Your task to perform on an android device: turn on airplane mode Image 0: 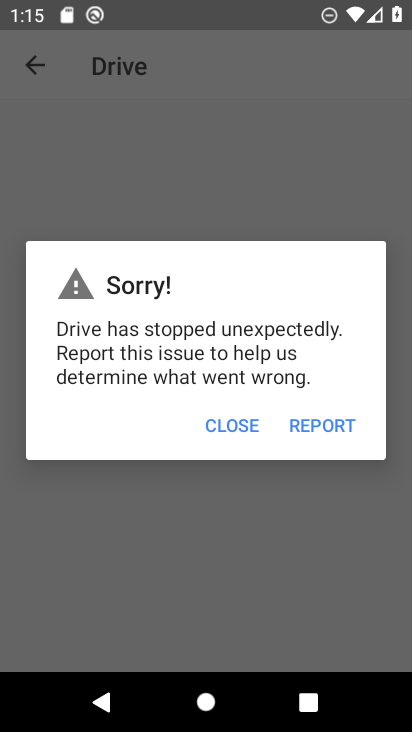
Step 0: press home button
Your task to perform on an android device: turn on airplane mode Image 1: 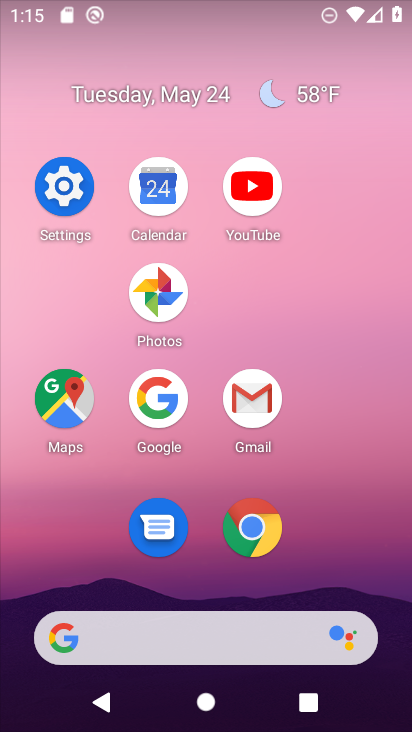
Step 1: click (64, 181)
Your task to perform on an android device: turn on airplane mode Image 2: 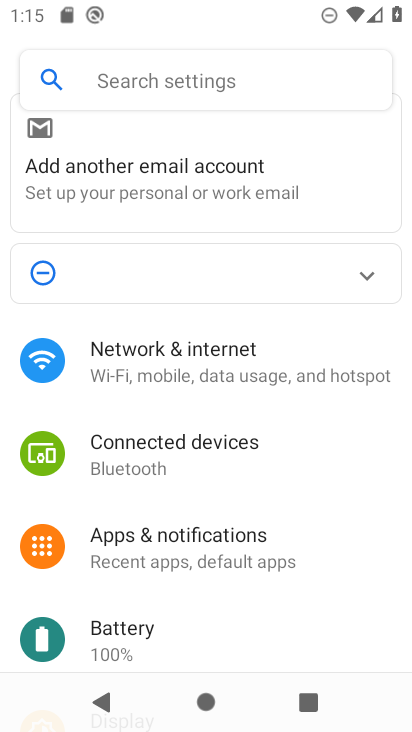
Step 2: click (255, 361)
Your task to perform on an android device: turn on airplane mode Image 3: 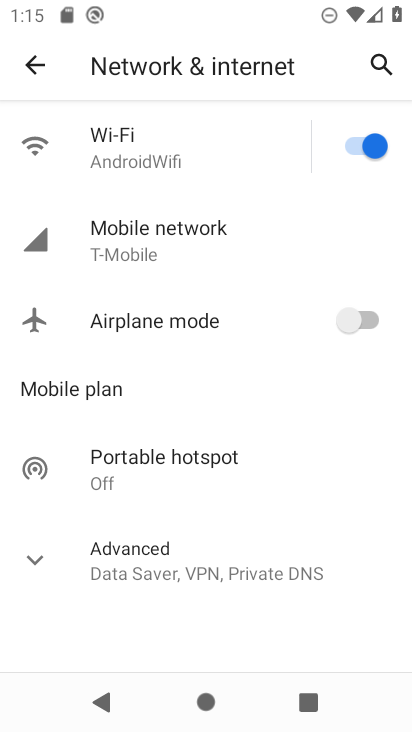
Step 3: click (357, 330)
Your task to perform on an android device: turn on airplane mode Image 4: 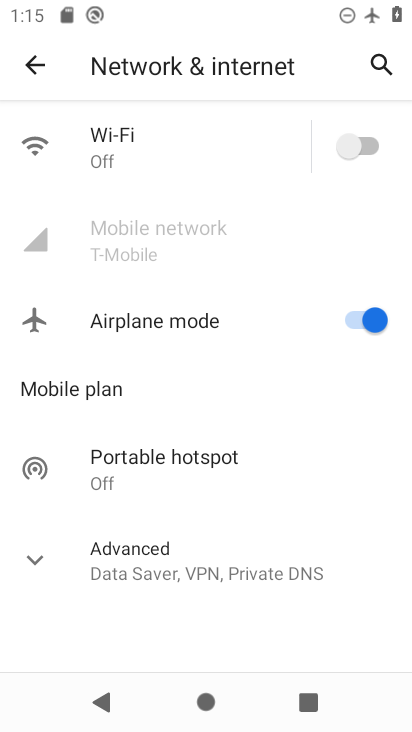
Step 4: task complete